Your task to perform on an android device: What's on my calendar today? Image 0: 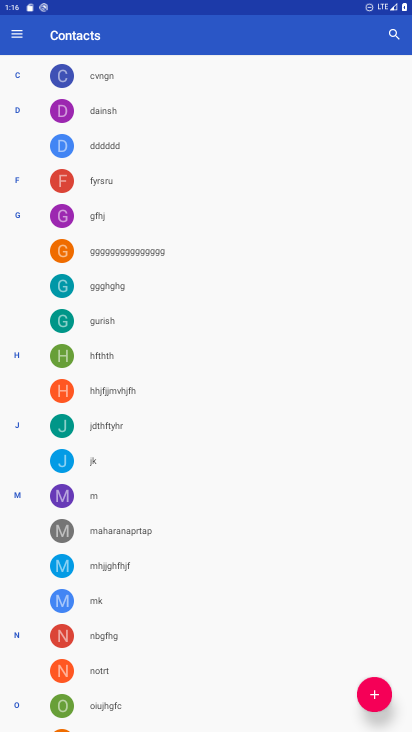
Step 0: drag from (217, 730) to (210, 346)
Your task to perform on an android device: What's on my calendar today? Image 1: 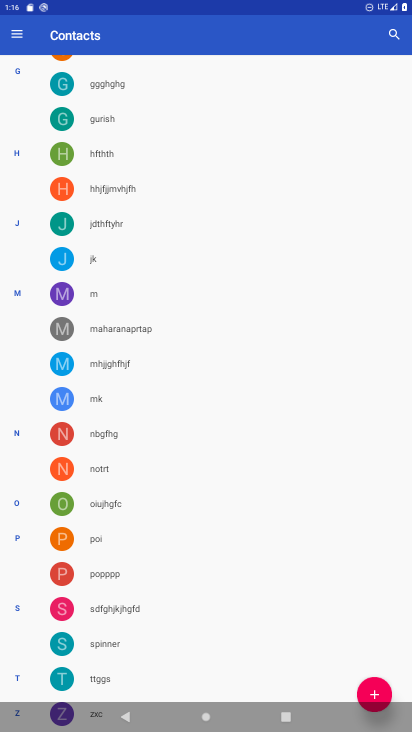
Step 1: click (203, 717)
Your task to perform on an android device: What's on my calendar today? Image 2: 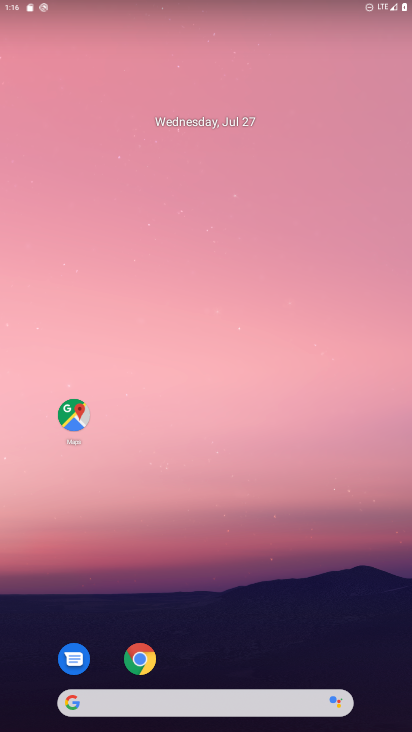
Step 2: drag from (212, 666) to (238, 151)
Your task to perform on an android device: What's on my calendar today? Image 3: 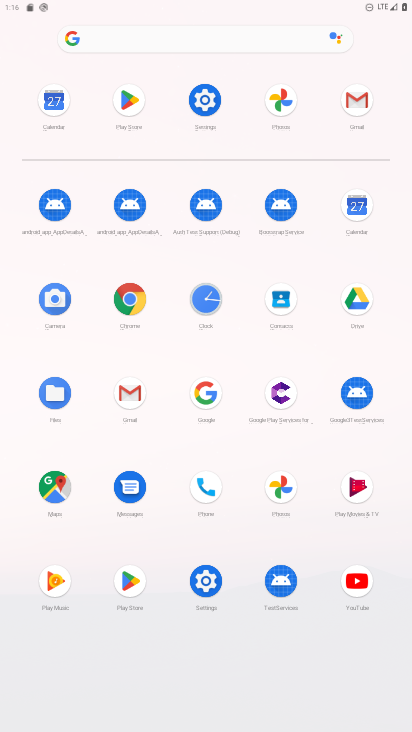
Step 3: click (368, 202)
Your task to perform on an android device: What's on my calendar today? Image 4: 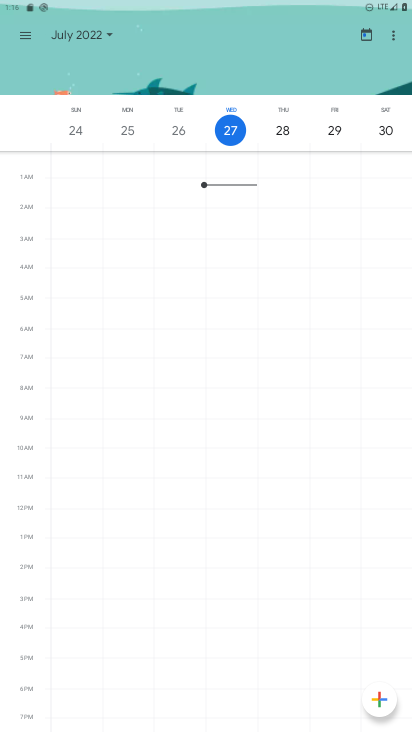
Step 4: click (235, 133)
Your task to perform on an android device: What's on my calendar today? Image 5: 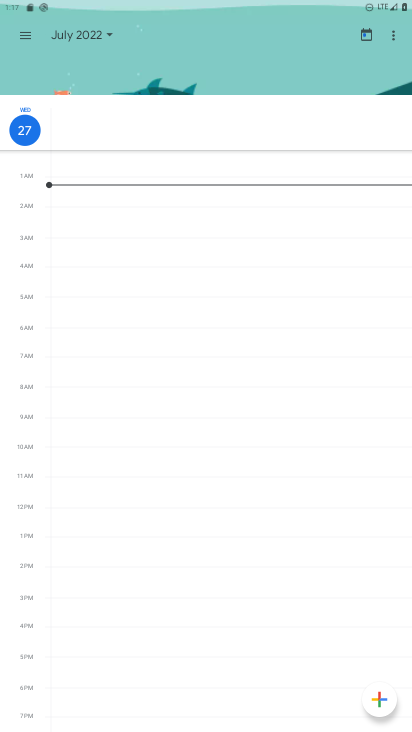
Step 5: task complete